Your task to perform on an android device: clear all cookies in the chrome app Image 0: 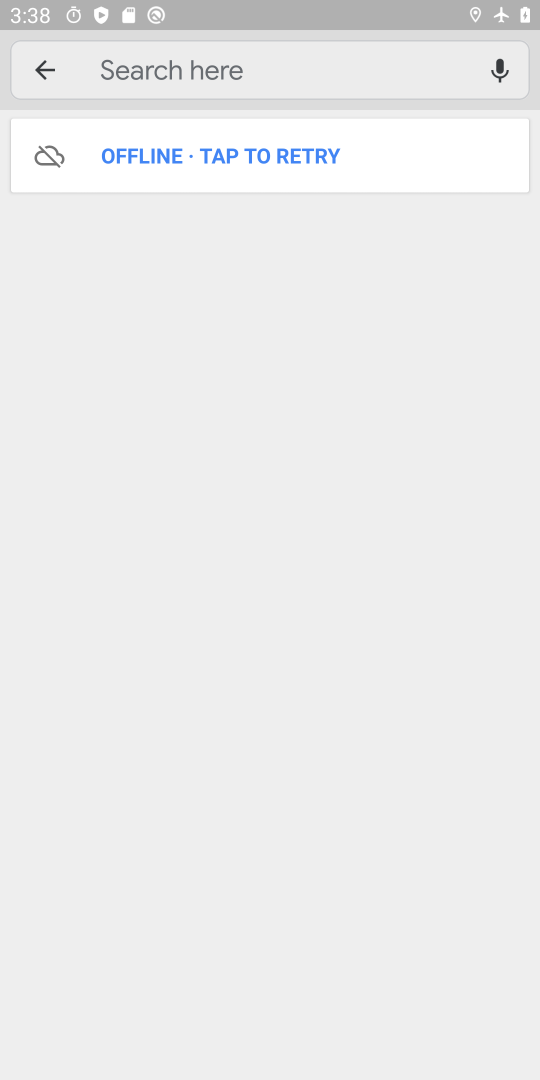
Step 0: press home button
Your task to perform on an android device: clear all cookies in the chrome app Image 1: 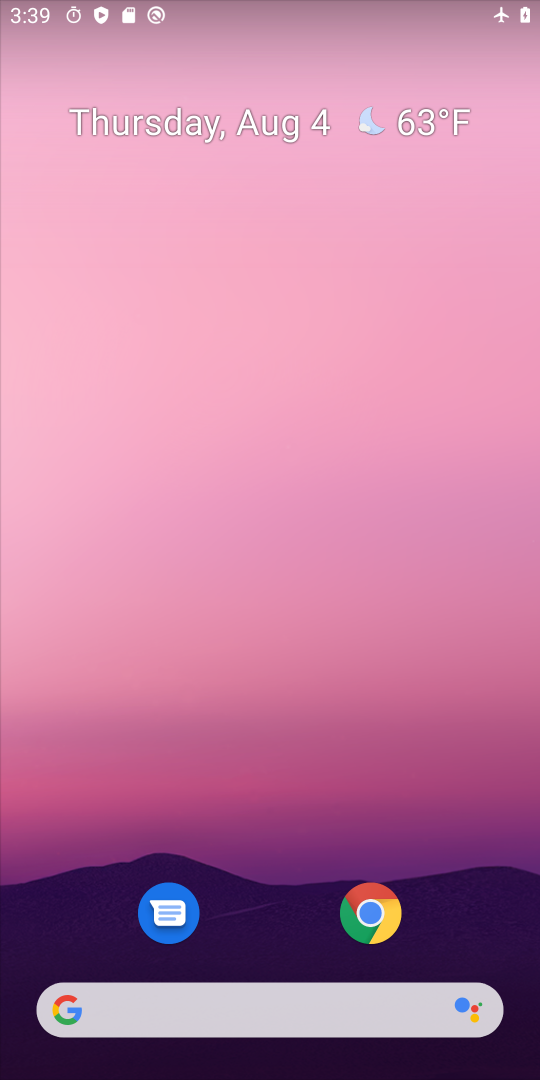
Step 1: drag from (226, 888) to (80, 0)
Your task to perform on an android device: clear all cookies in the chrome app Image 2: 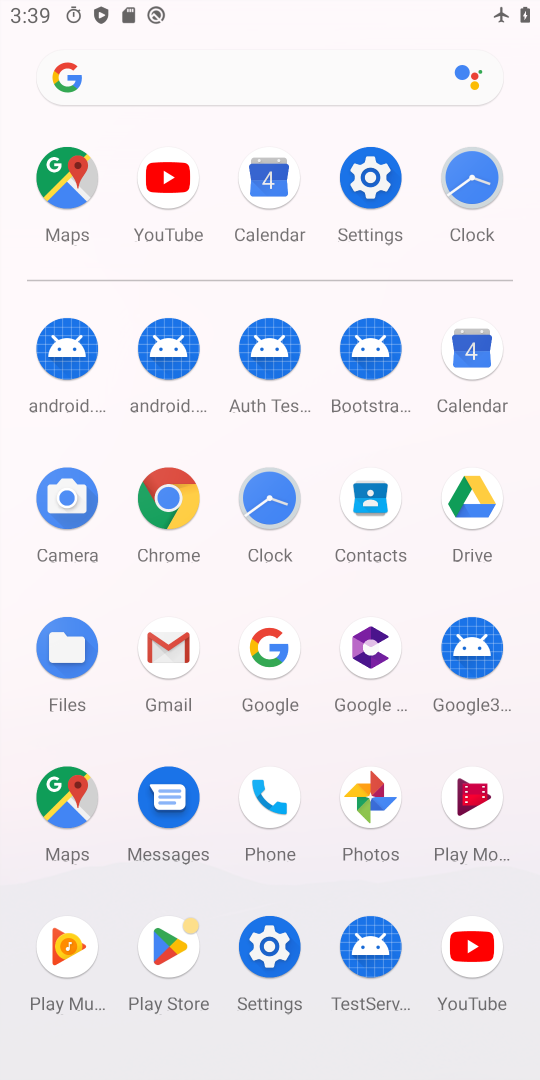
Step 2: click (178, 501)
Your task to perform on an android device: clear all cookies in the chrome app Image 3: 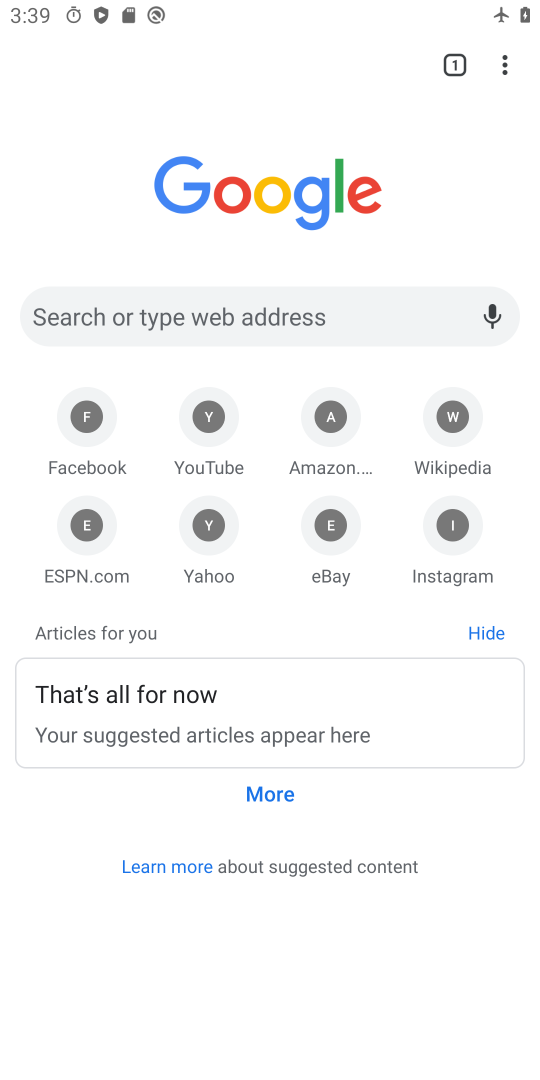
Step 3: drag from (505, 61) to (329, 547)
Your task to perform on an android device: clear all cookies in the chrome app Image 4: 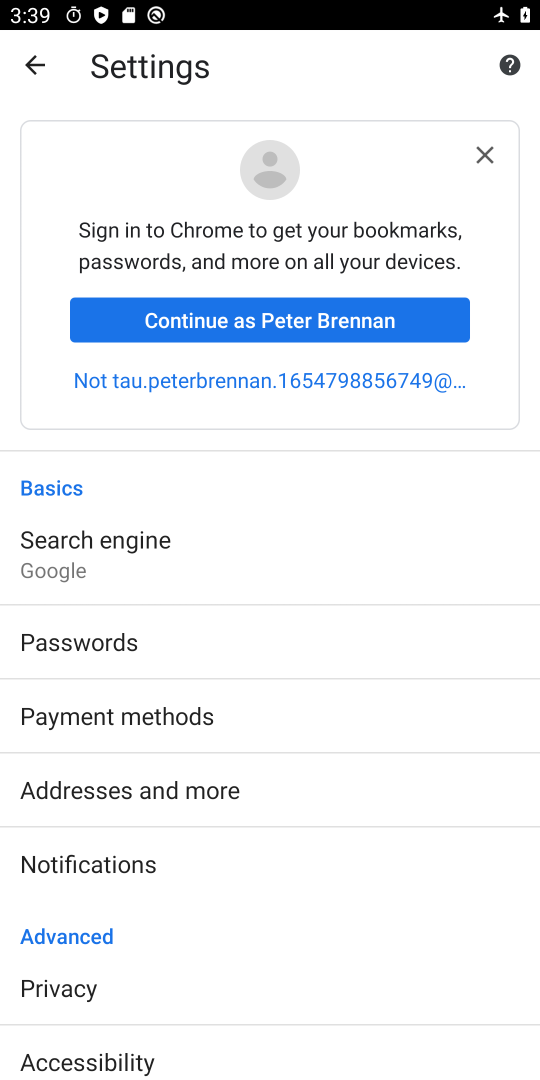
Step 4: click (138, 1005)
Your task to perform on an android device: clear all cookies in the chrome app Image 5: 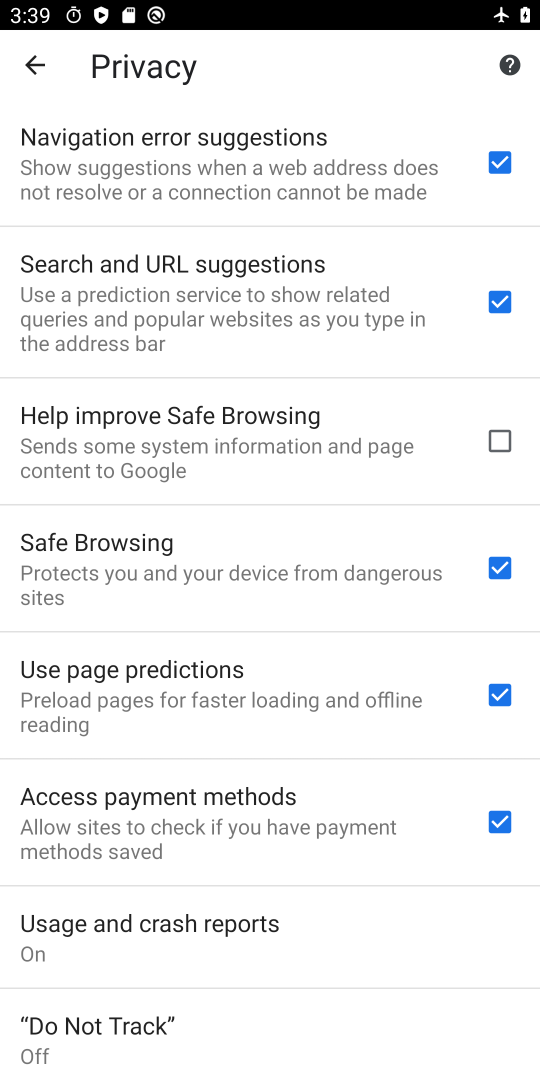
Step 5: drag from (293, 1046) to (292, 115)
Your task to perform on an android device: clear all cookies in the chrome app Image 6: 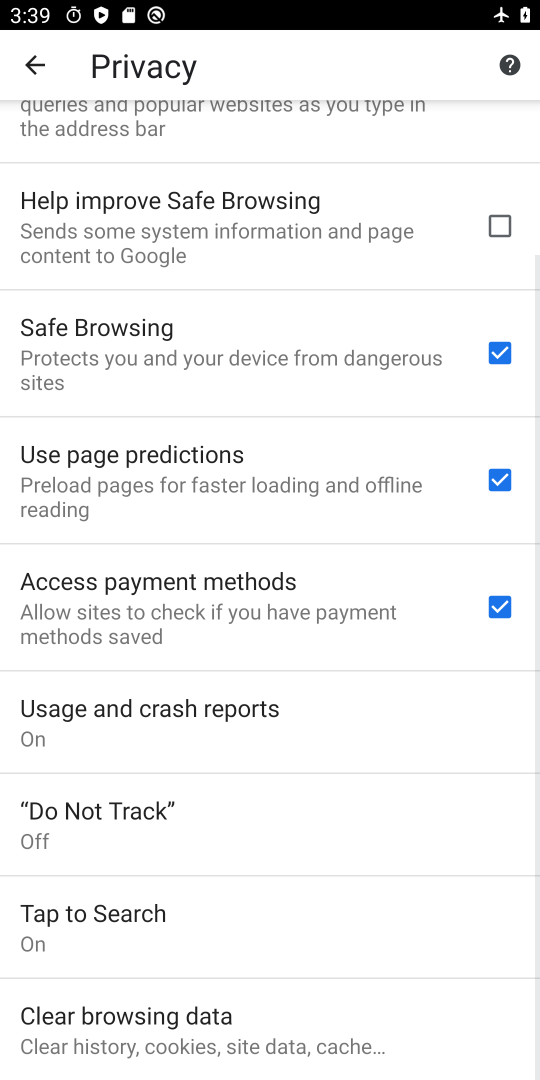
Step 6: click (163, 1006)
Your task to perform on an android device: clear all cookies in the chrome app Image 7: 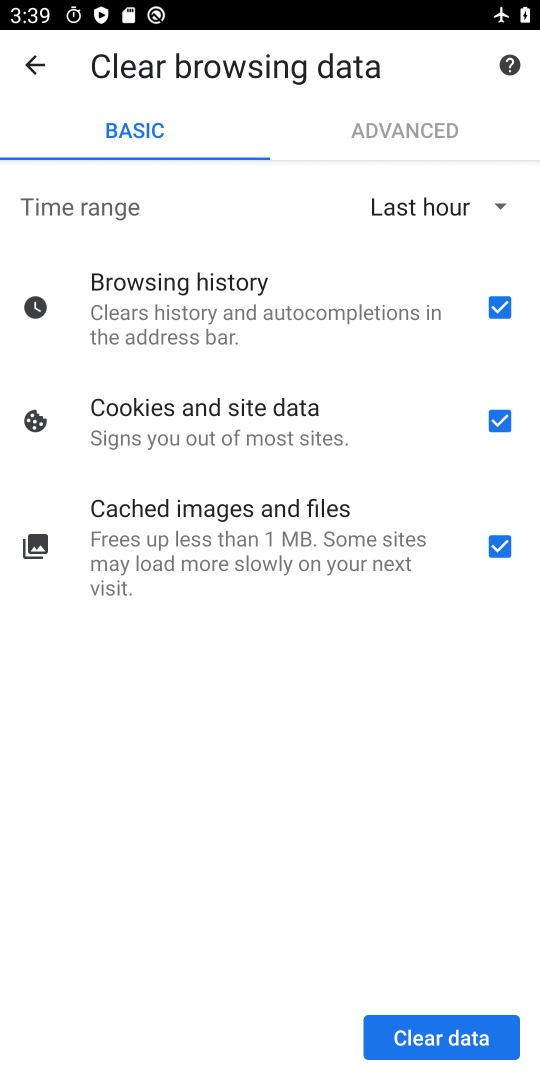
Step 7: click (460, 1044)
Your task to perform on an android device: clear all cookies in the chrome app Image 8: 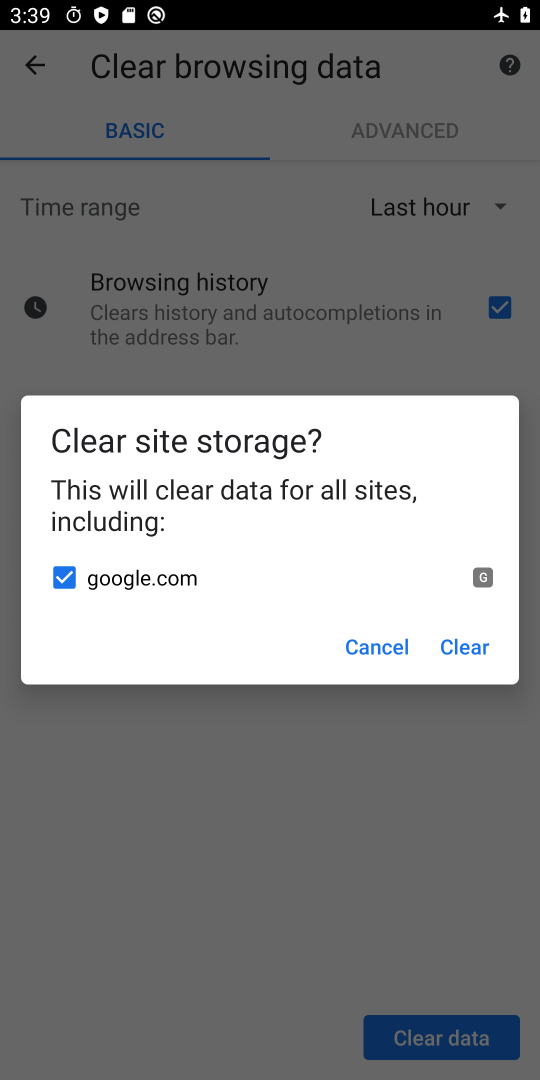
Step 8: click (455, 644)
Your task to perform on an android device: clear all cookies in the chrome app Image 9: 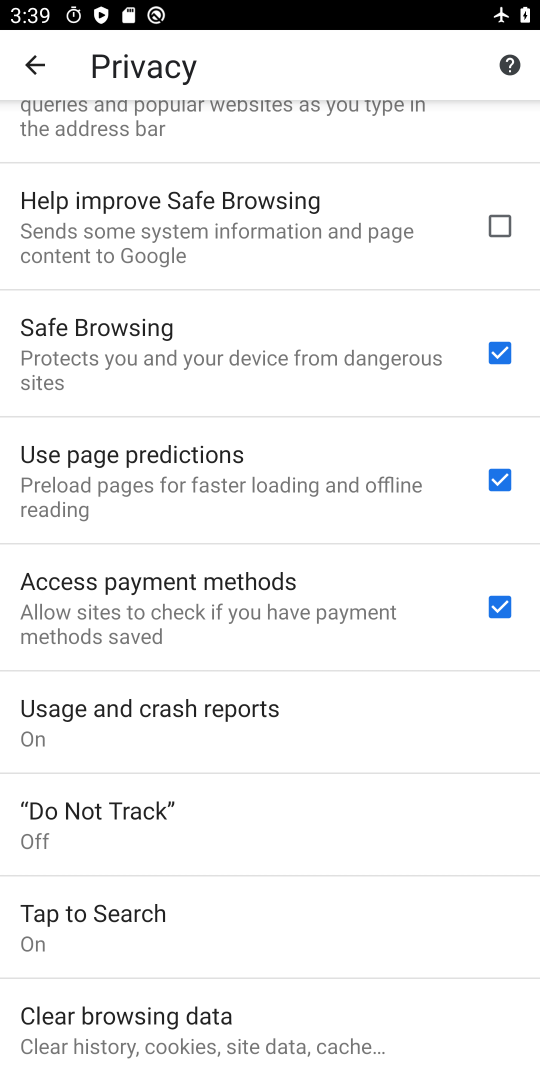
Step 9: task complete